Your task to perform on an android device: toggle notification dots Image 0: 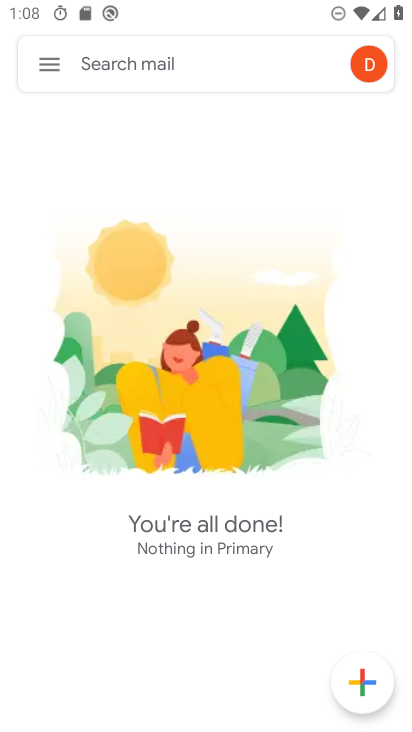
Step 0: press home button
Your task to perform on an android device: toggle notification dots Image 1: 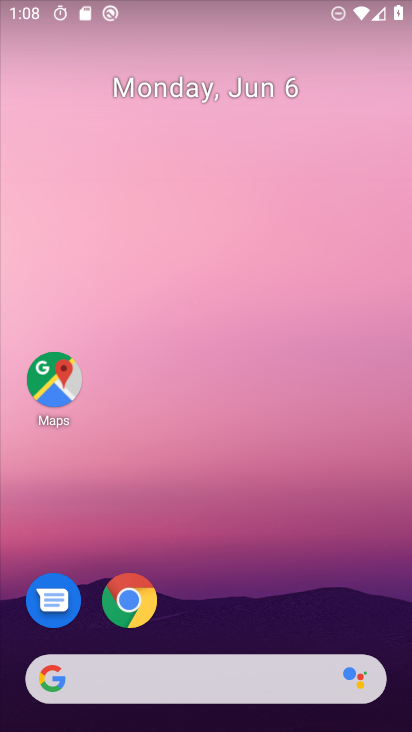
Step 1: drag from (234, 633) to (243, 212)
Your task to perform on an android device: toggle notification dots Image 2: 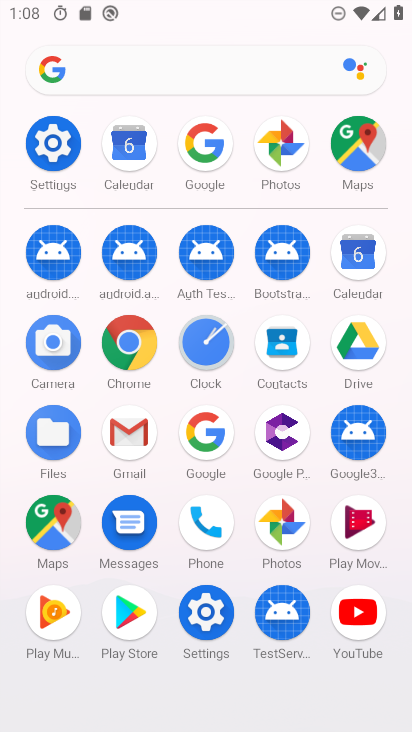
Step 2: click (62, 142)
Your task to perform on an android device: toggle notification dots Image 3: 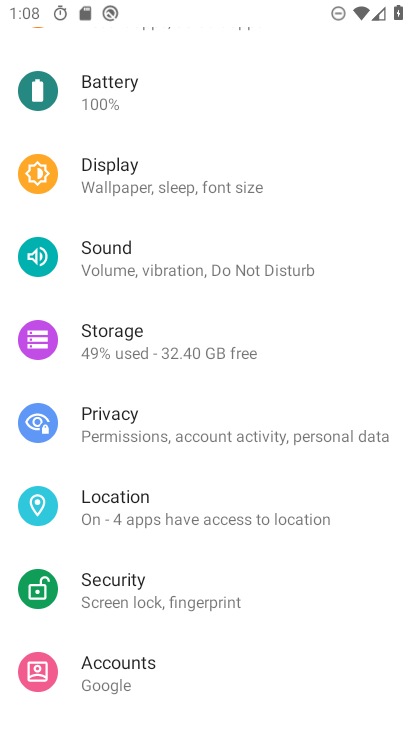
Step 3: drag from (240, 267) to (248, 549)
Your task to perform on an android device: toggle notification dots Image 4: 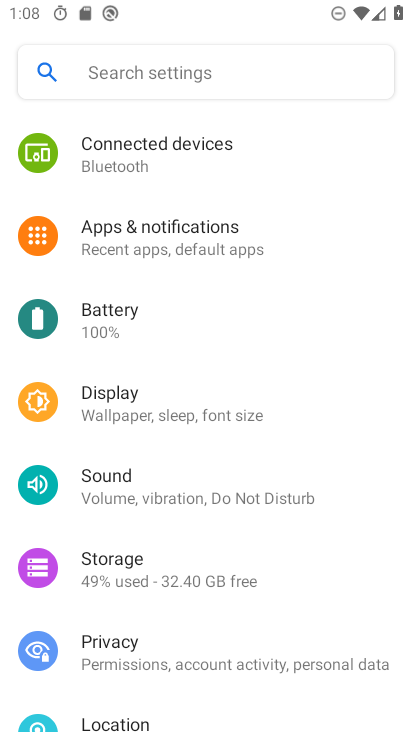
Step 4: click (234, 260)
Your task to perform on an android device: toggle notification dots Image 5: 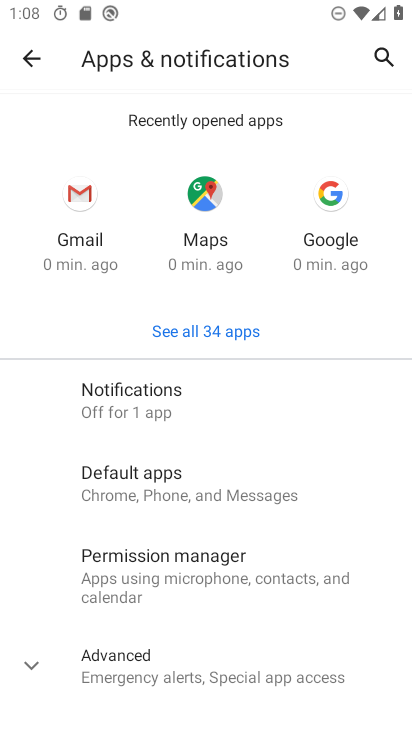
Step 5: click (231, 405)
Your task to perform on an android device: toggle notification dots Image 6: 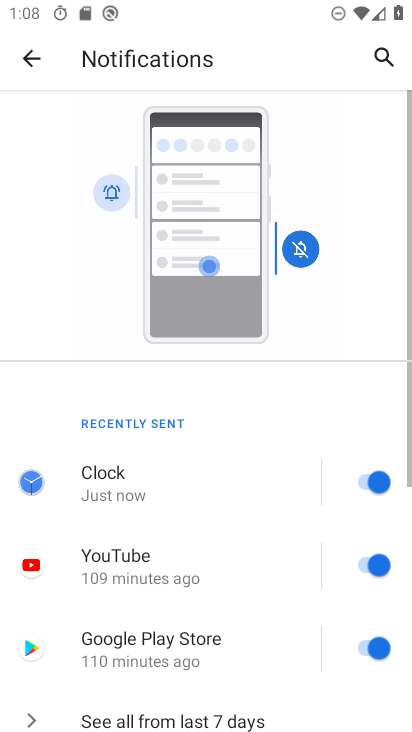
Step 6: drag from (254, 607) to (273, 267)
Your task to perform on an android device: toggle notification dots Image 7: 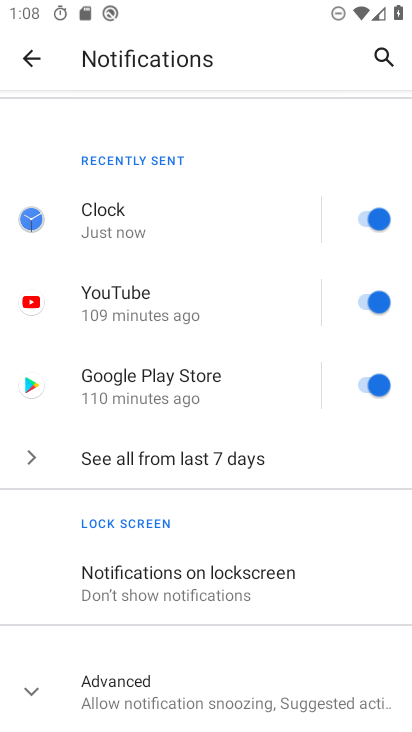
Step 7: drag from (265, 637) to (265, 308)
Your task to perform on an android device: toggle notification dots Image 8: 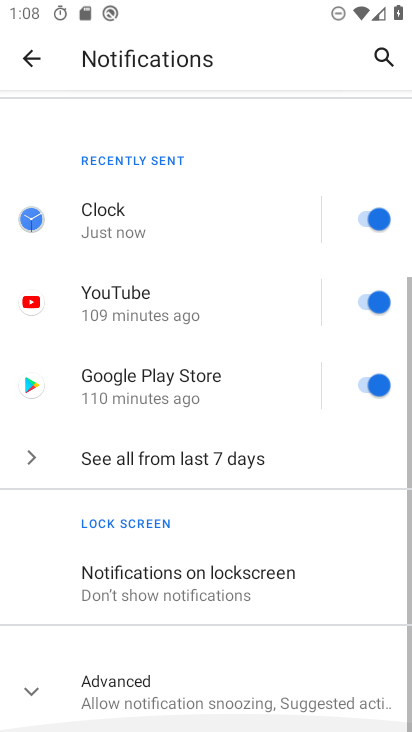
Step 8: click (261, 684)
Your task to perform on an android device: toggle notification dots Image 9: 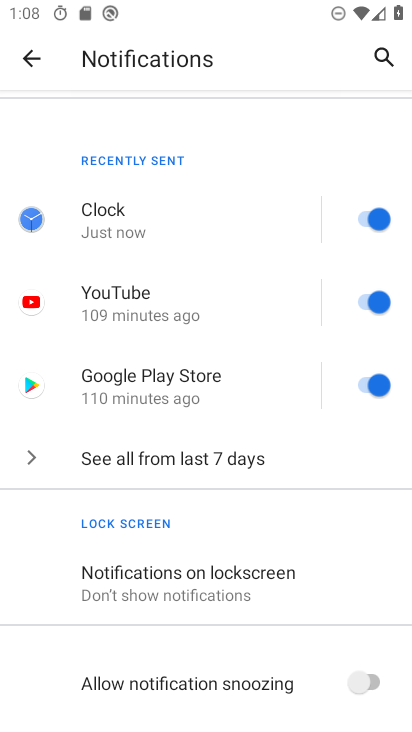
Step 9: drag from (161, 659) to (193, 318)
Your task to perform on an android device: toggle notification dots Image 10: 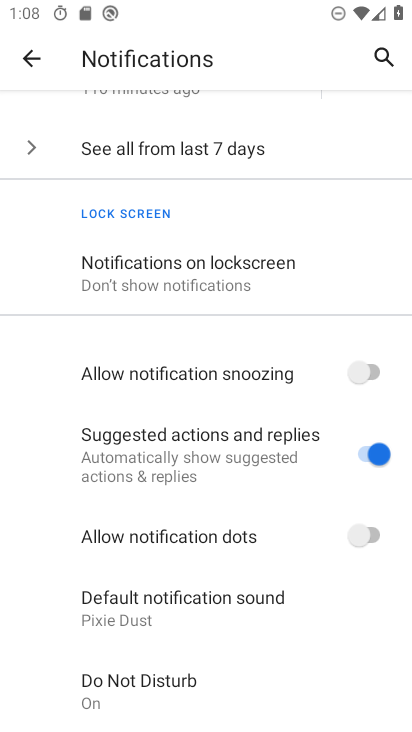
Step 10: click (369, 526)
Your task to perform on an android device: toggle notification dots Image 11: 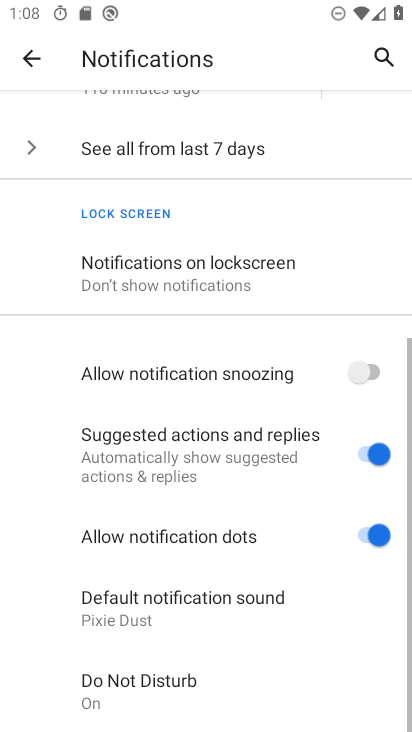
Step 11: task complete